Your task to perform on an android device: Show me productivity apps on the Play Store Image 0: 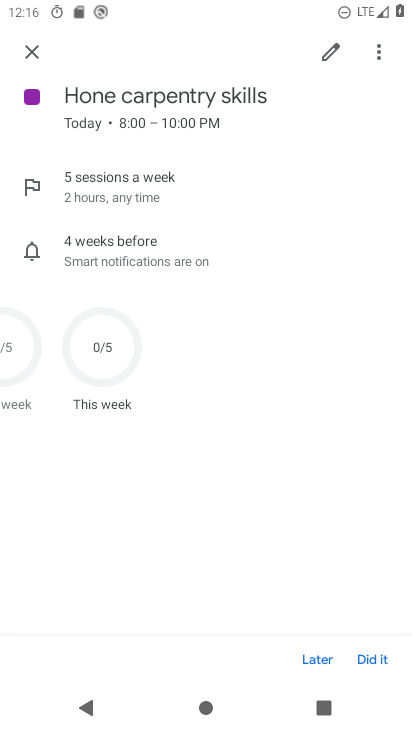
Step 0: press home button
Your task to perform on an android device: Show me productivity apps on the Play Store Image 1: 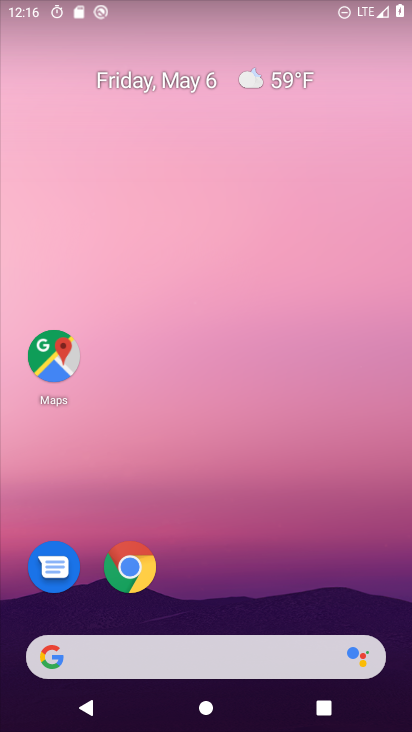
Step 1: drag from (235, 585) to (264, 14)
Your task to perform on an android device: Show me productivity apps on the Play Store Image 2: 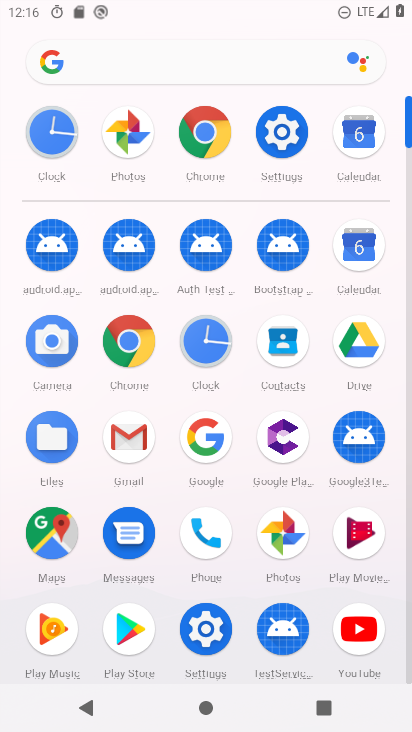
Step 2: click (130, 642)
Your task to perform on an android device: Show me productivity apps on the Play Store Image 3: 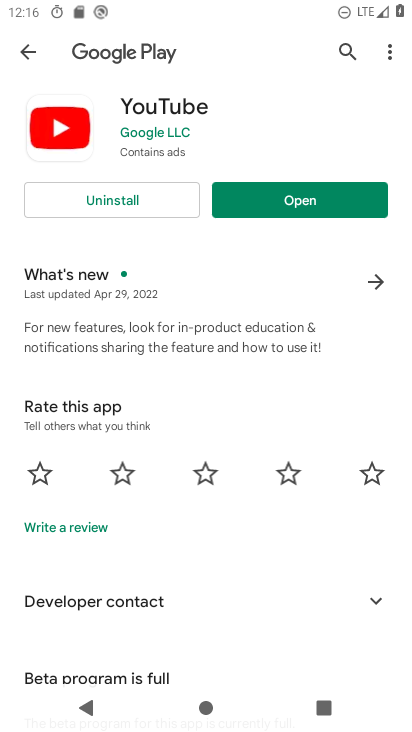
Step 3: click (24, 56)
Your task to perform on an android device: Show me productivity apps on the Play Store Image 4: 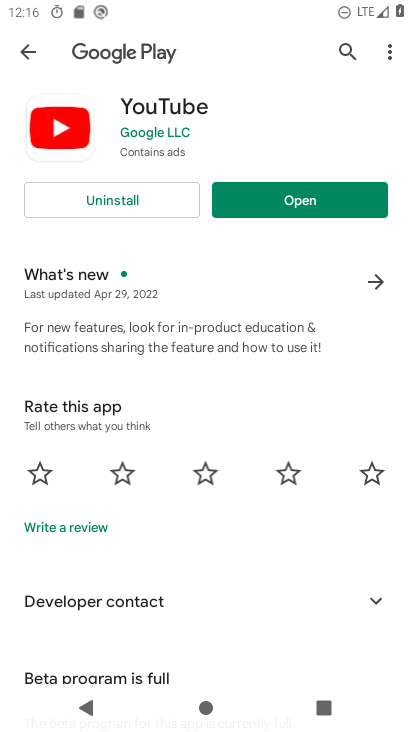
Step 4: click (26, 52)
Your task to perform on an android device: Show me productivity apps on the Play Store Image 5: 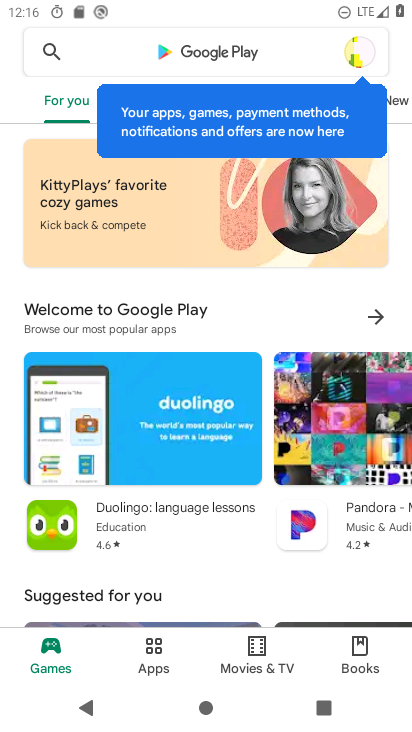
Step 5: click (155, 662)
Your task to perform on an android device: Show me productivity apps on the Play Store Image 6: 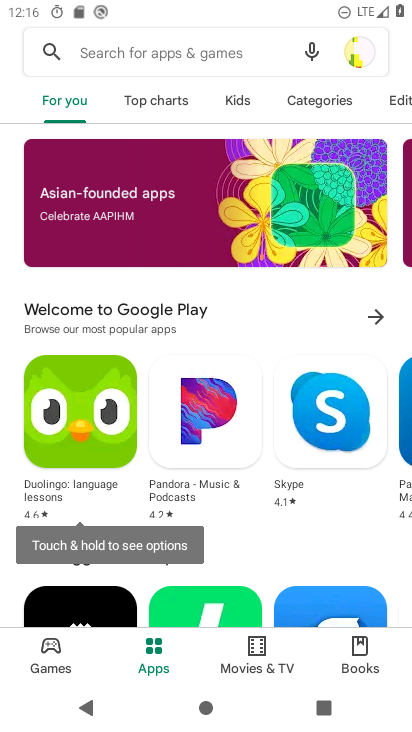
Step 6: click (339, 102)
Your task to perform on an android device: Show me productivity apps on the Play Store Image 7: 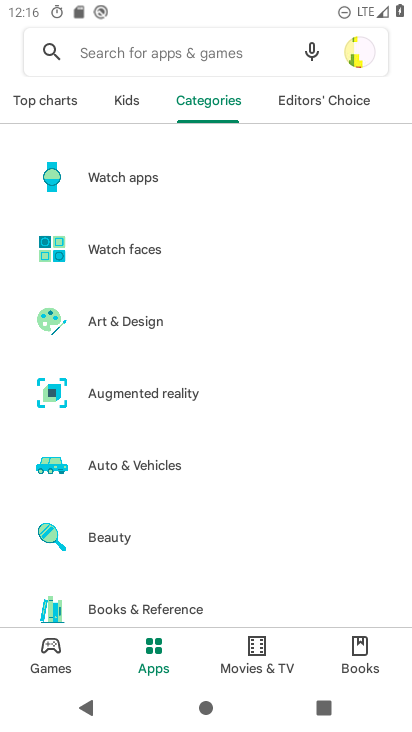
Step 7: drag from (236, 566) to (246, 60)
Your task to perform on an android device: Show me productivity apps on the Play Store Image 8: 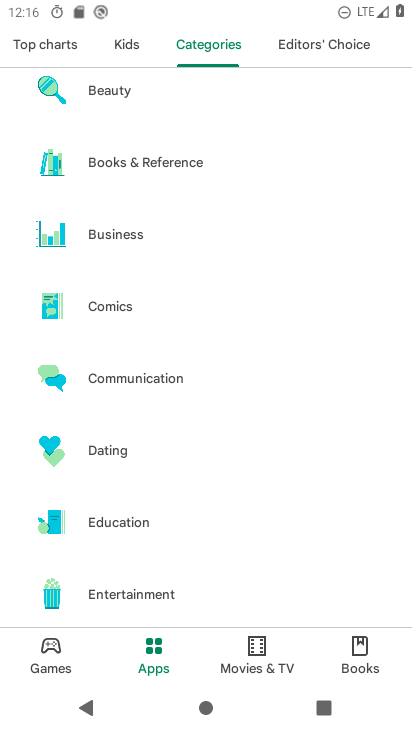
Step 8: drag from (201, 488) to (196, 126)
Your task to perform on an android device: Show me productivity apps on the Play Store Image 9: 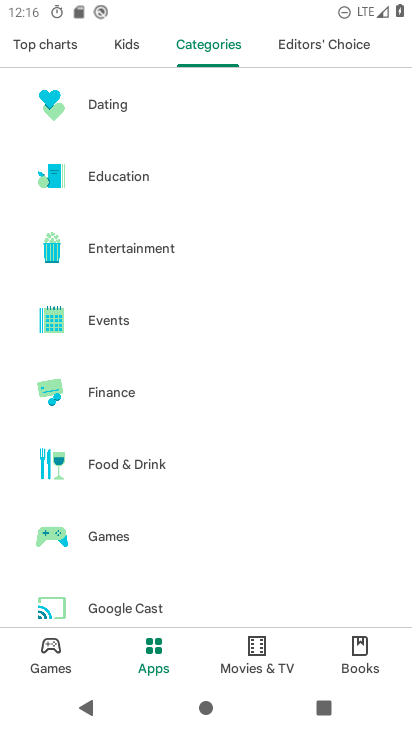
Step 9: drag from (202, 508) to (195, 127)
Your task to perform on an android device: Show me productivity apps on the Play Store Image 10: 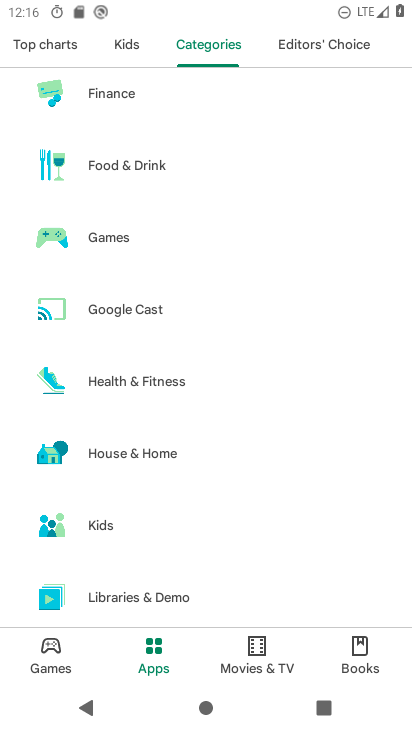
Step 10: drag from (192, 519) to (190, 97)
Your task to perform on an android device: Show me productivity apps on the Play Store Image 11: 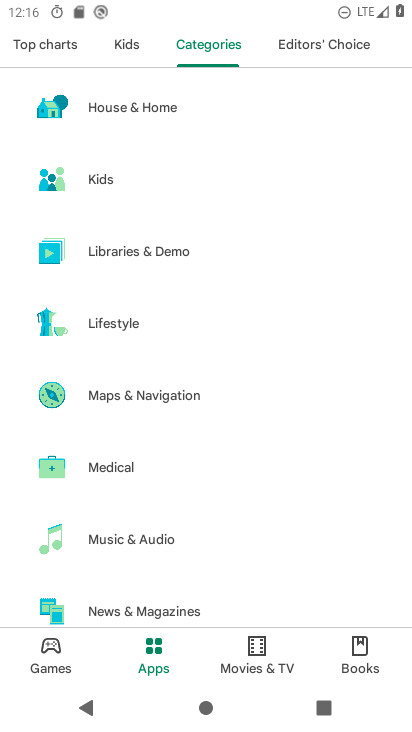
Step 11: drag from (224, 500) to (209, 82)
Your task to perform on an android device: Show me productivity apps on the Play Store Image 12: 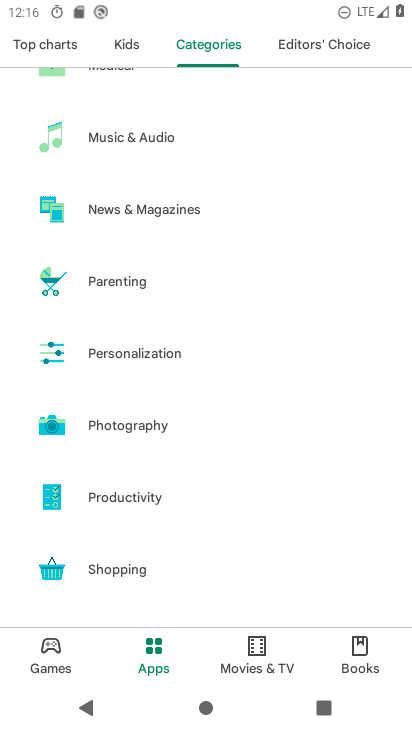
Step 12: click (134, 496)
Your task to perform on an android device: Show me productivity apps on the Play Store Image 13: 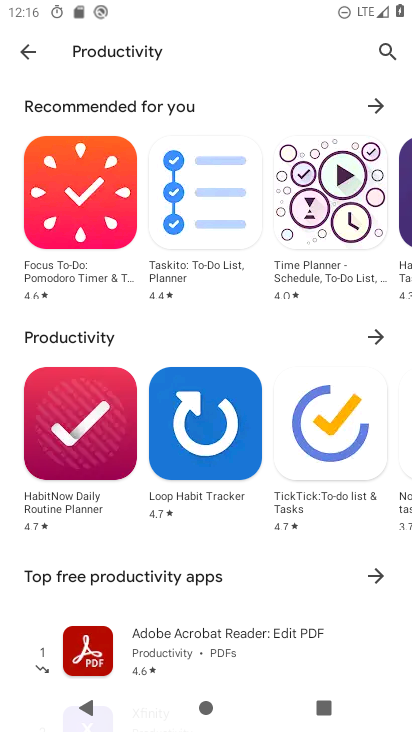
Step 13: task complete